Your task to perform on an android device: open sync settings in chrome Image 0: 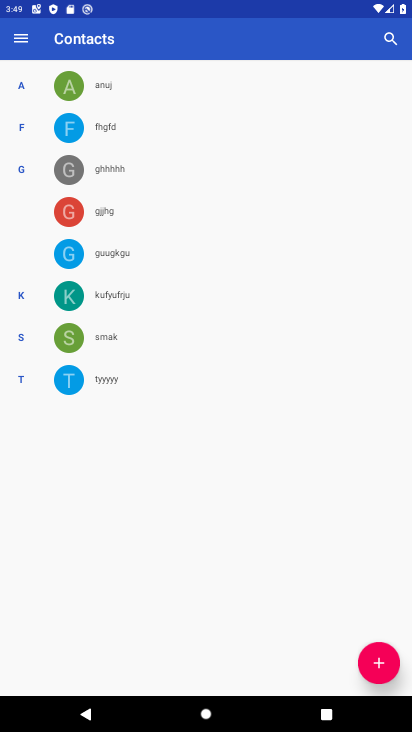
Step 0: press home button
Your task to perform on an android device: open sync settings in chrome Image 1: 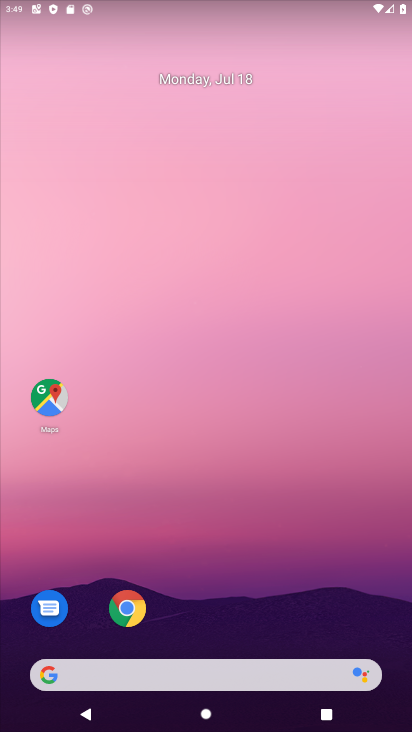
Step 1: click (114, 603)
Your task to perform on an android device: open sync settings in chrome Image 2: 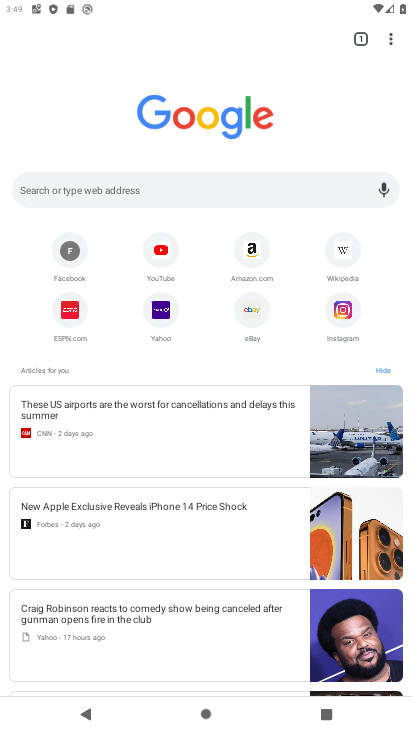
Step 2: task complete